Your task to perform on an android device: toggle airplane mode Image 0: 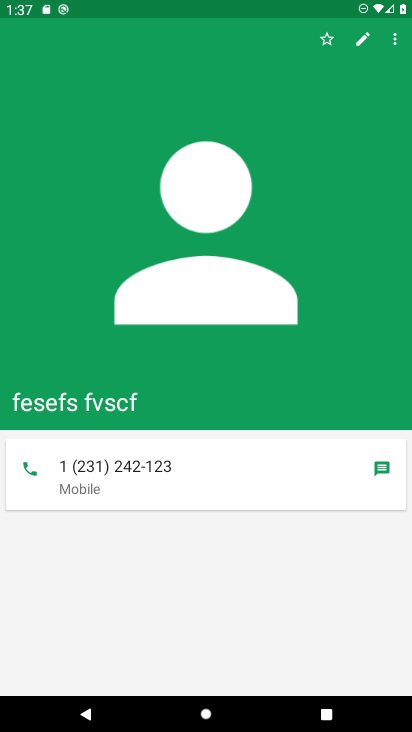
Step 0: press home button
Your task to perform on an android device: toggle airplane mode Image 1: 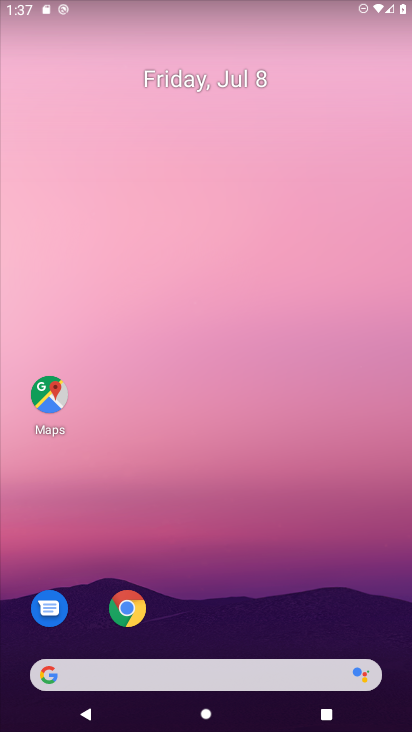
Step 1: drag from (338, 533) to (328, 213)
Your task to perform on an android device: toggle airplane mode Image 2: 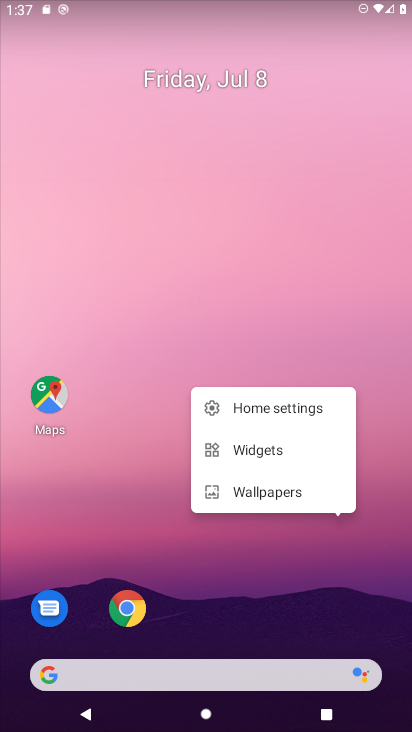
Step 2: drag from (264, 309) to (259, 110)
Your task to perform on an android device: toggle airplane mode Image 3: 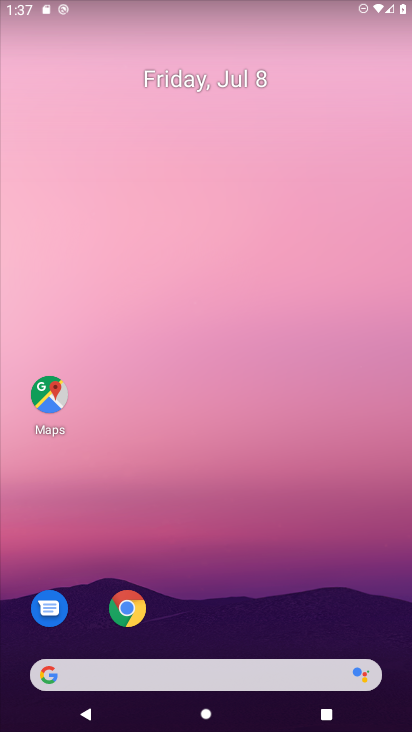
Step 3: click (259, 110)
Your task to perform on an android device: toggle airplane mode Image 4: 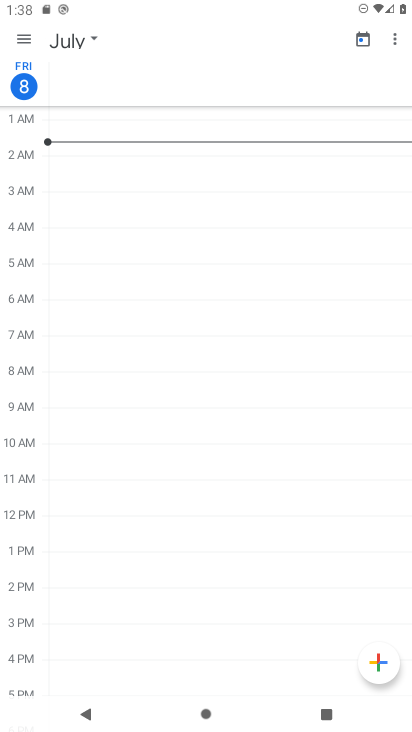
Step 4: task complete